Your task to perform on an android device: Open the calendar app, open the side menu, and click the "Day" option Image 0: 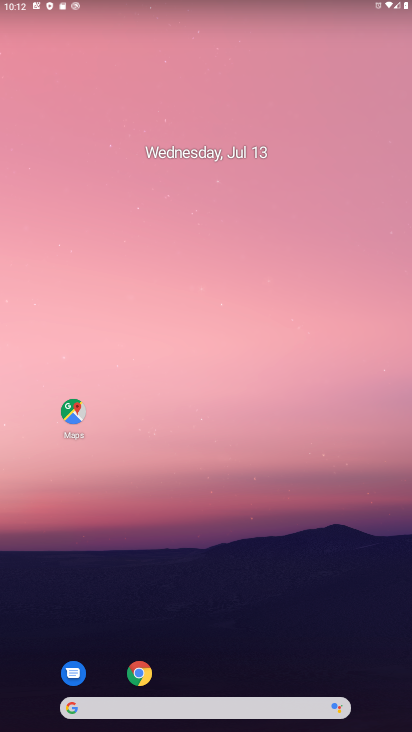
Step 0: click (209, 156)
Your task to perform on an android device: Open the calendar app, open the side menu, and click the "Day" option Image 1: 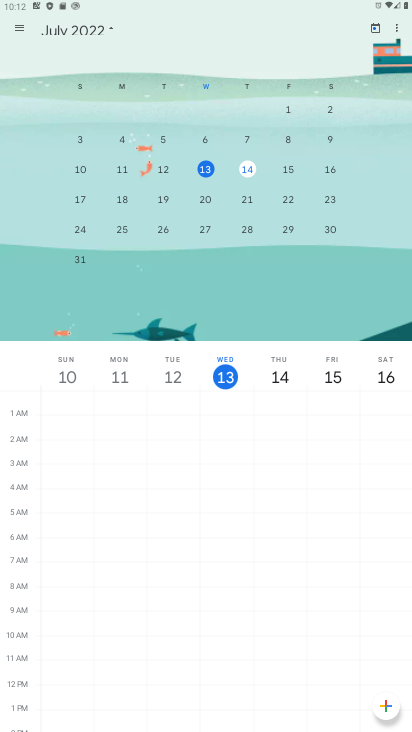
Step 1: click (24, 27)
Your task to perform on an android device: Open the calendar app, open the side menu, and click the "Day" option Image 2: 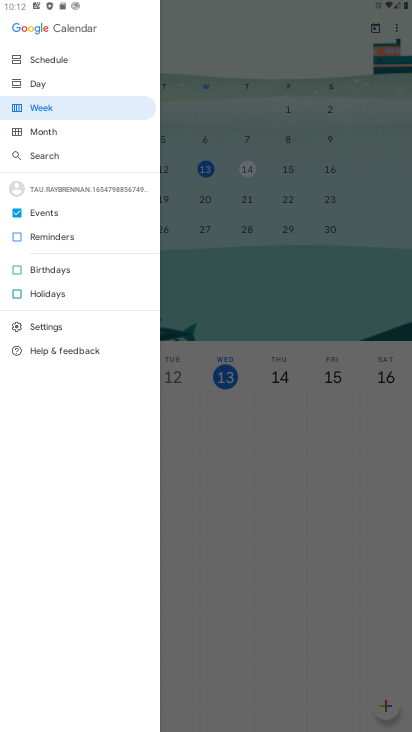
Step 2: click (27, 81)
Your task to perform on an android device: Open the calendar app, open the side menu, and click the "Day" option Image 3: 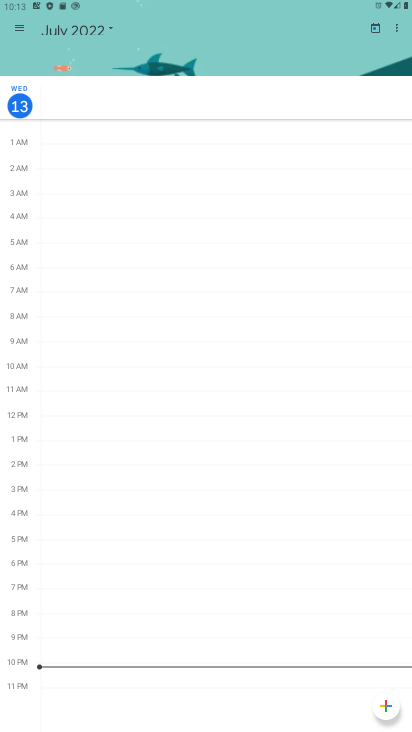
Step 3: task complete